Your task to perform on an android device: make emails show in primary in the gmail app Image 0: 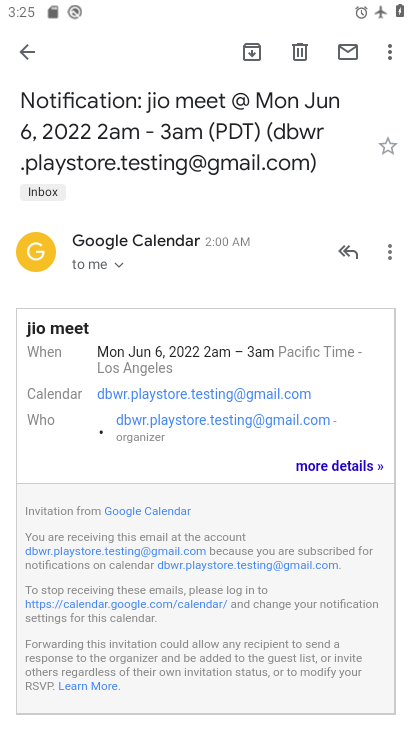
Step 0: press home button
Your task to perform on an android device: make emails show in primary in the gmail app Image 1: 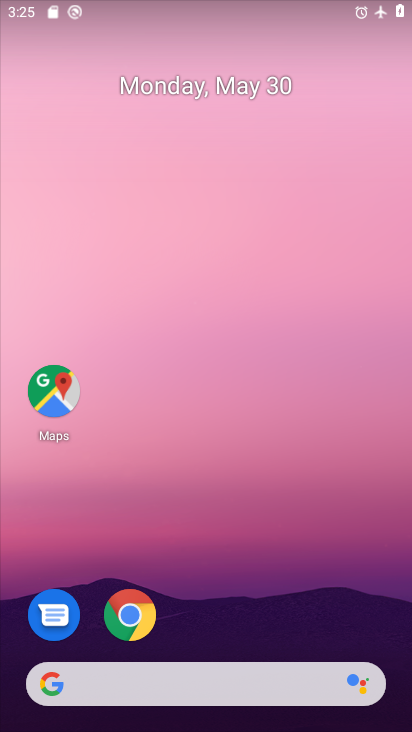
Step 1: drag from (244, 588) to (296, 43)
Your task to perform on an android device: make emails show in primary in the gmail app Image 2: 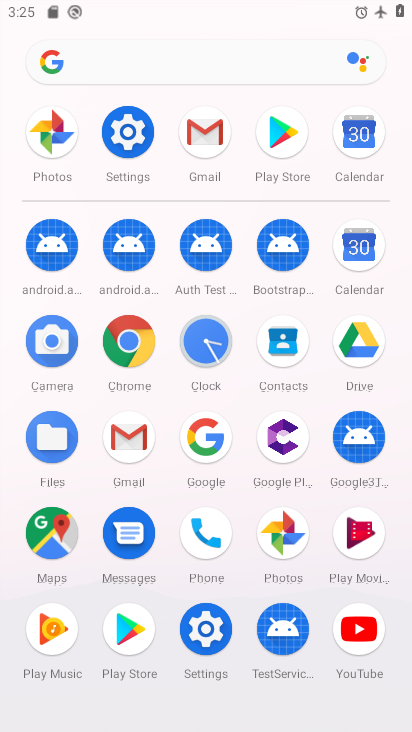
Step 2: click (211, 123)
Your task to perform on an android device: make emails show in primary in the gmail app Image 3: 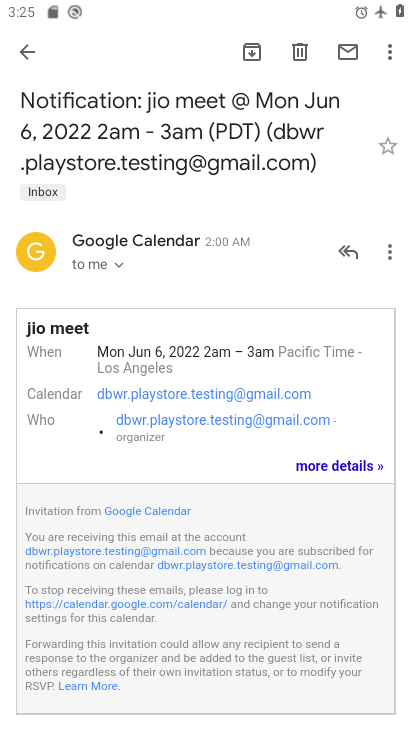
Step 3: click (33, 52)
Your task to perform on an android device: make emails show in primary in the gmail app Image 4: 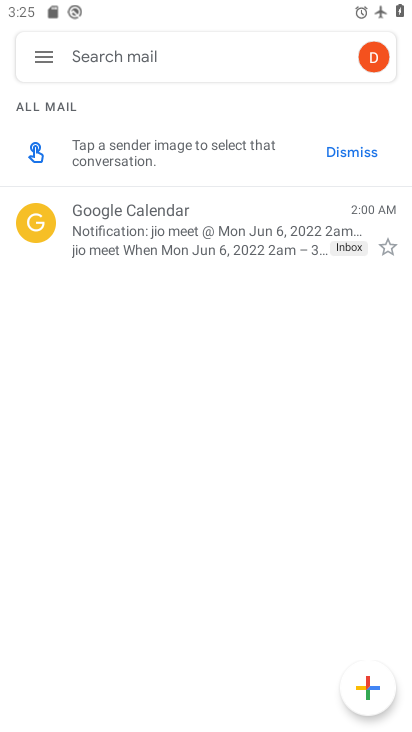
Step 4: click (40, 49)
Your task to perform on an android device: make emails show in primary in the gmail app Image 5: 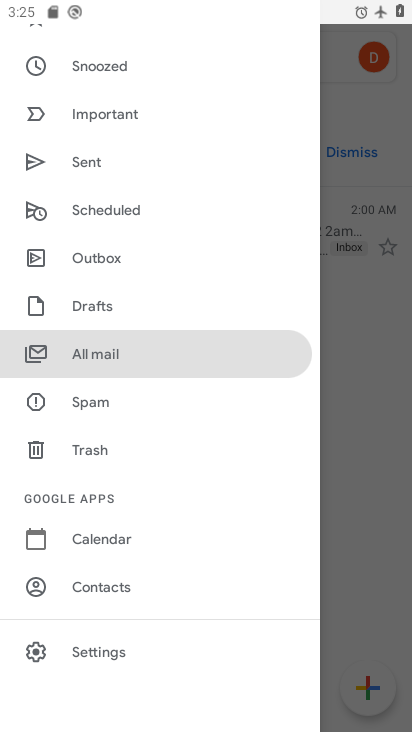
Step 5: click (127, 657)
Your task to perform on an android device: make emails show in primary in the gmail app Image 6: 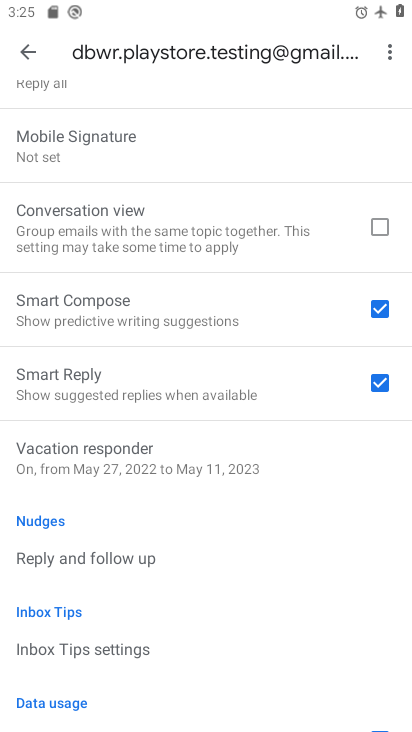
Step 6: drag from (255, 249) to (227, 623)
Your task to perform on an android device: make emails show in primary in the gmail app Image 7: 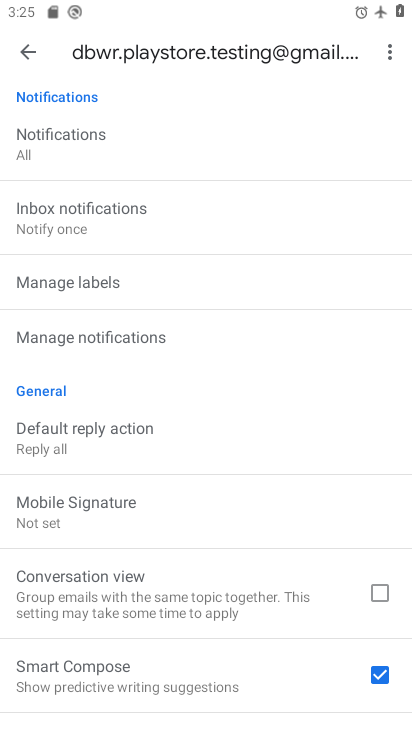
Step 7: drag from (223, 209) to (220, 439)
Your task to perform on an android device: make emails show in primary in the gmail app Image 8: 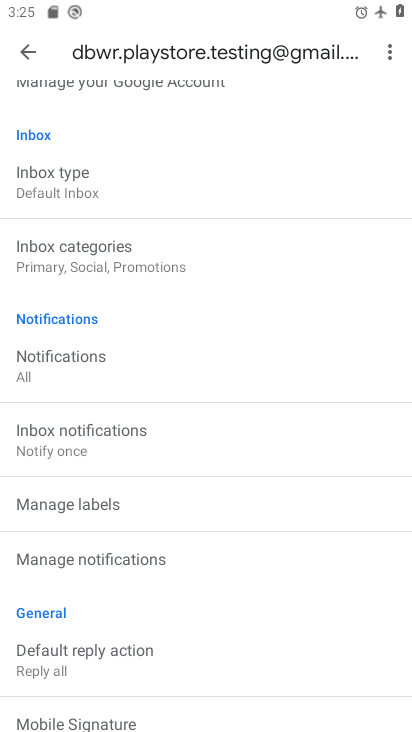
Step 8: click (90, 250)
Your task to perform on an android device: make emails show in primary in the gmail app Image 9: 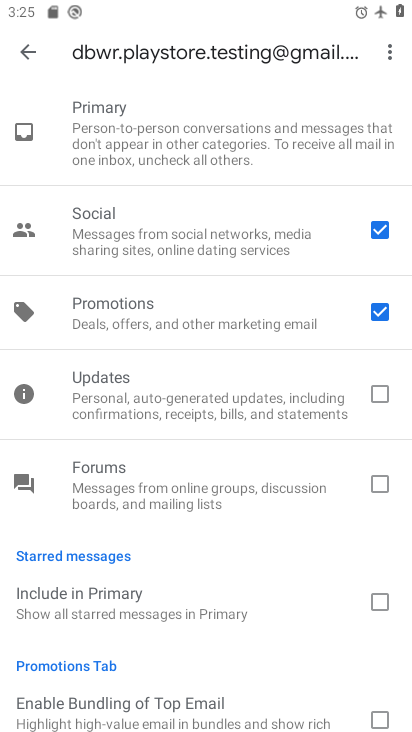
Step 9: click (384, 233)
Your task to perform on an android device: make emails show in primary in the gmail app Image 10: 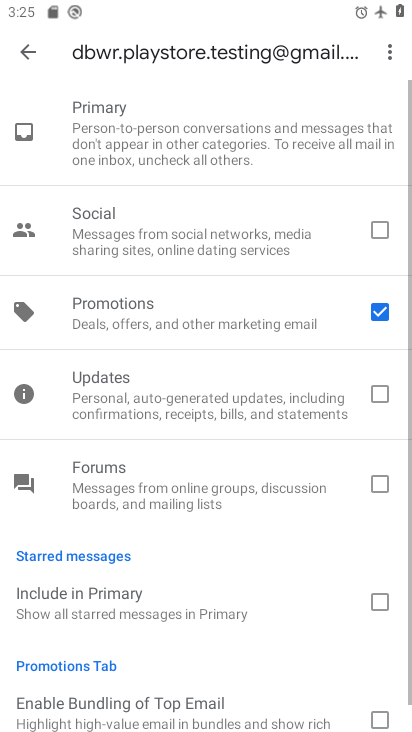
Step 10: click (384, 303)
Your task to perform on an android device: make emails show in primary in the gmail app Image 11: 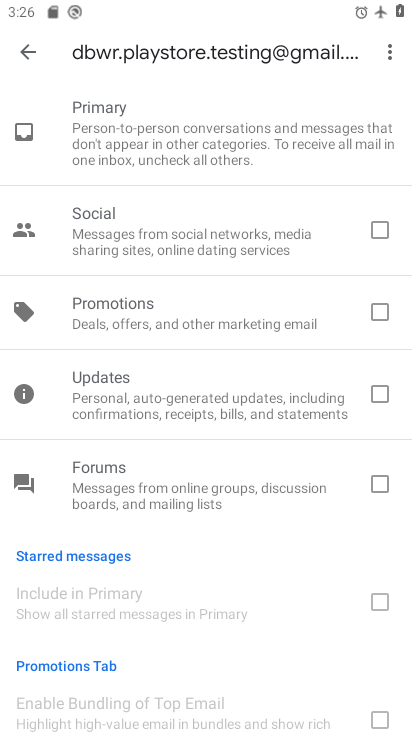
Step 11: task complete